Your task to perform on an android device: What's the weather? Image 0: 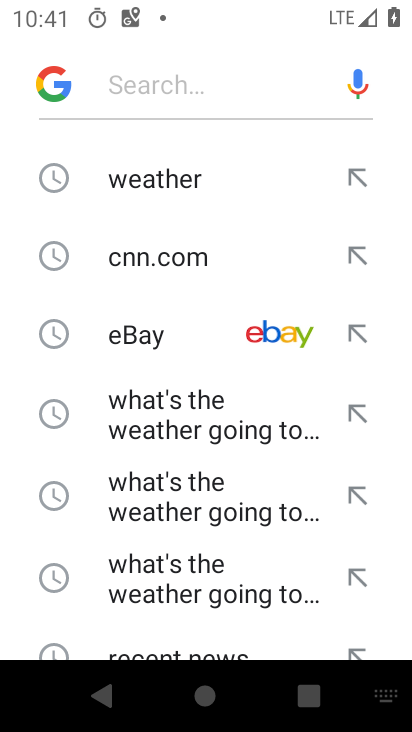
Step 0: click (135, 180)
Your task to perform on an android device: What's the weather? Image 1: 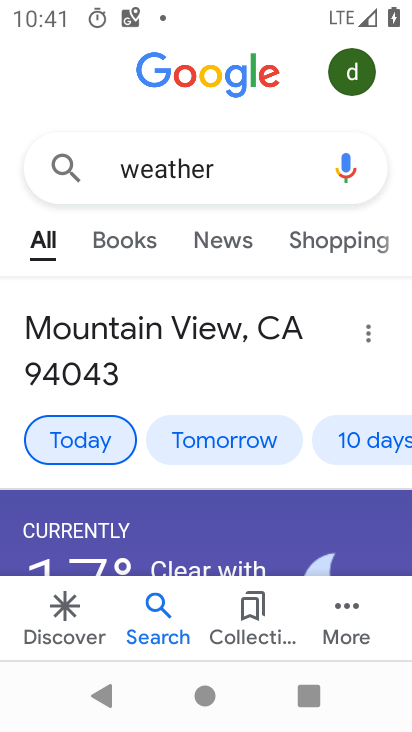
Step 1: click (72, 439)
Your task to perform on an android device: What's the weather? Image 2: 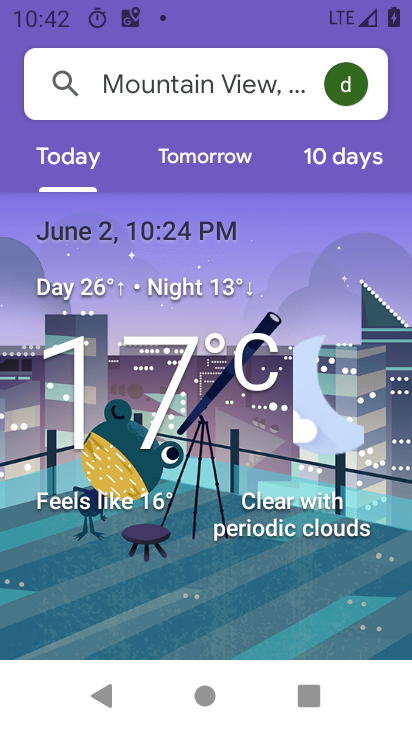
Step 2: task complete